Your task to perform on an android device: Clear all items from cart on newegg.com. Image 0: 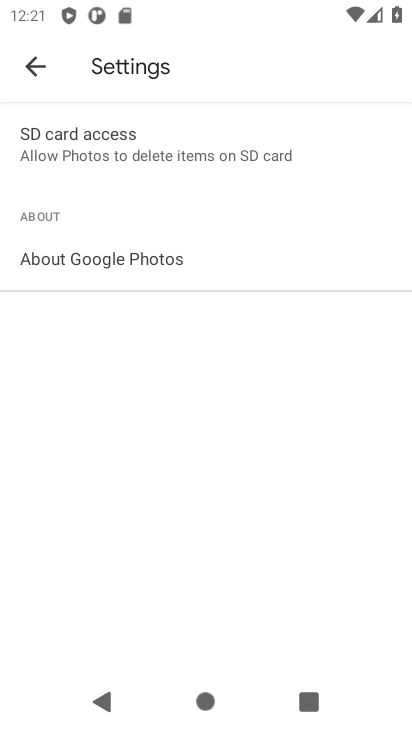
Step 0: press home button
Your task to perform on an android device: Clear all items from cart on newegg.com. Image 1: 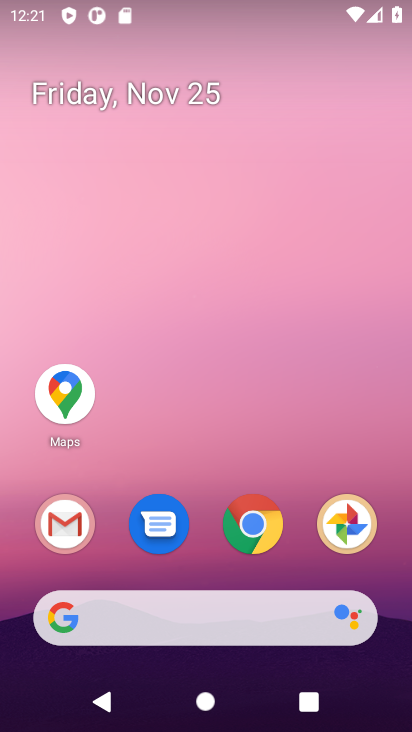
Step 1: click (260, 531)
Your task to perform on an android device: Clear all items from cart on newegg.com. Image 2: 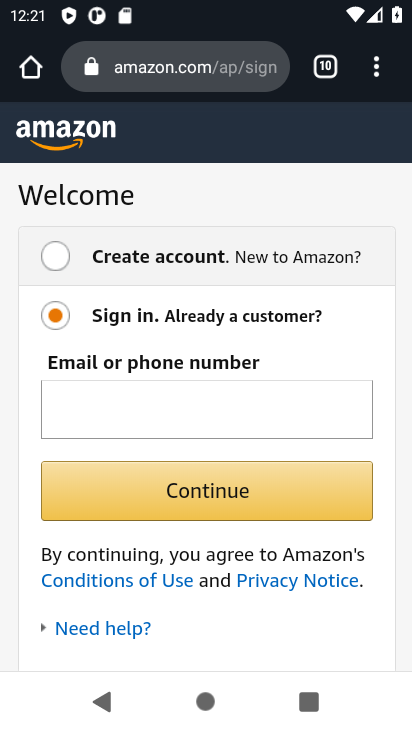
Step 2: click (159, 71)
Your task to perform on an android device: Clear all items from cart on newegg.com. Image 3: 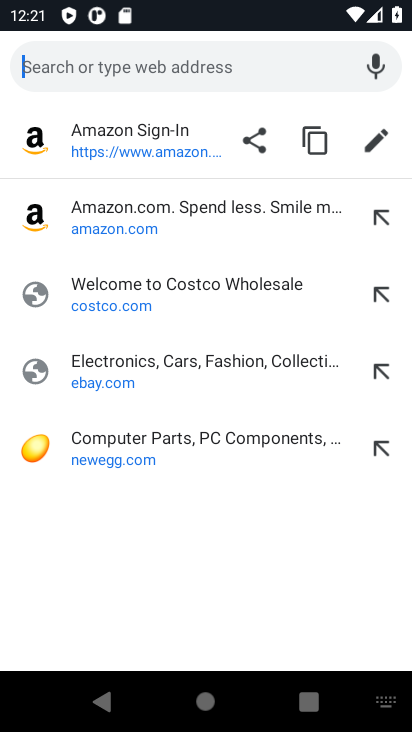
Step 3: click (68, 454)
Your task to perform on an android device: Clear all items from cart on newegg.com. Image 4: 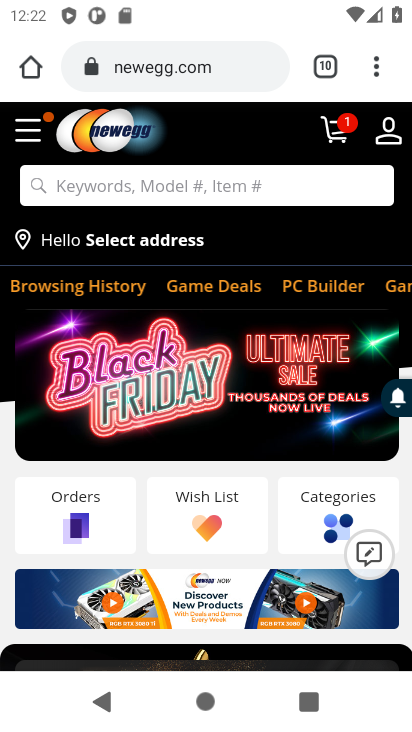
Step 4: click (342, 136)
Your task to perform on an android device: Clear all items from cart on newegg.com. Image 5: 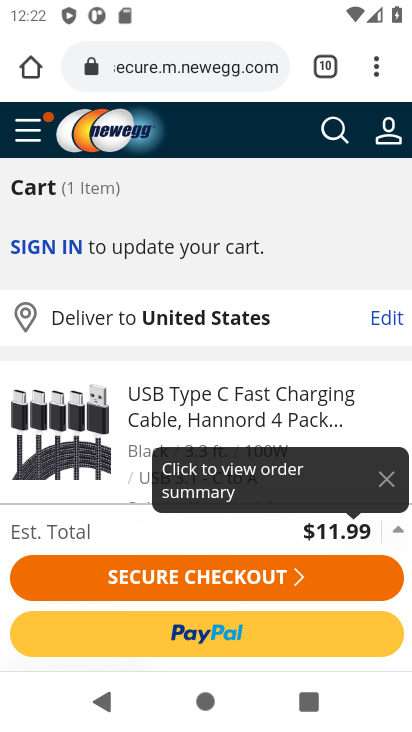
Step 5: drag from (223, 448) to (262, 223)
Your task to perform on an android device: Clear all items from cart on newegg.com. Image 6: 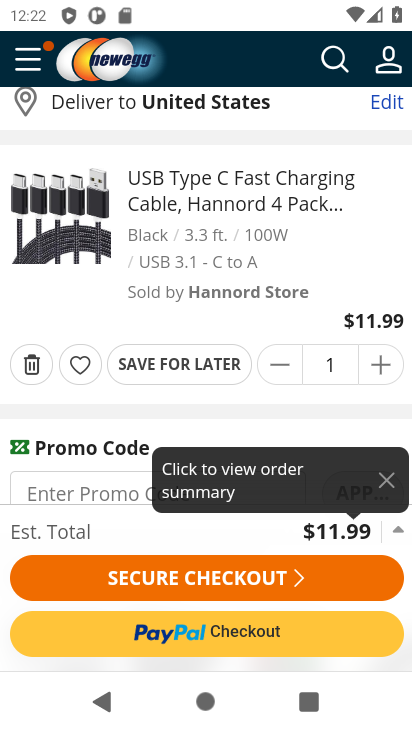
Step 6: click (34, 364)
Your task to perform on an android device: Clear all items from cart on newegg.com. Image 7: 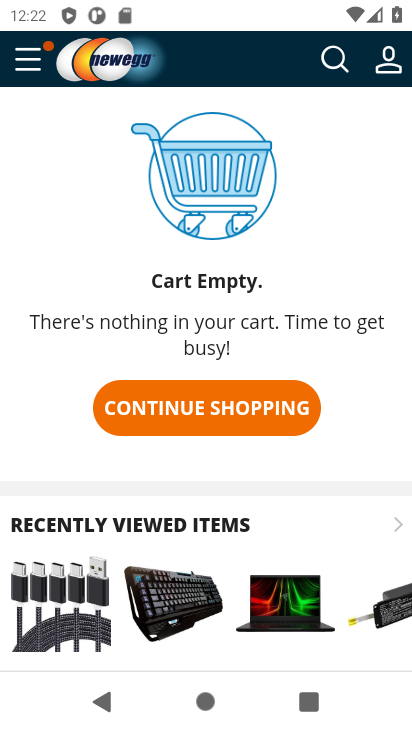
Step 7: task complete